Your task to perform on an android device: Go to notification settings Image 0: 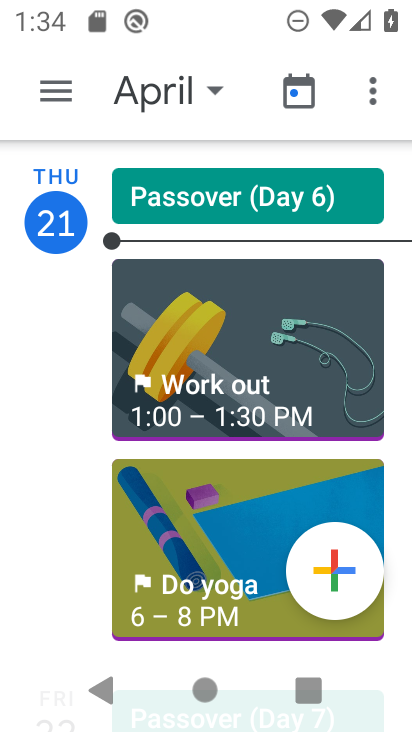
Step 0: press home button
Your task to perform on an android device: Go to notification settings Image 1: 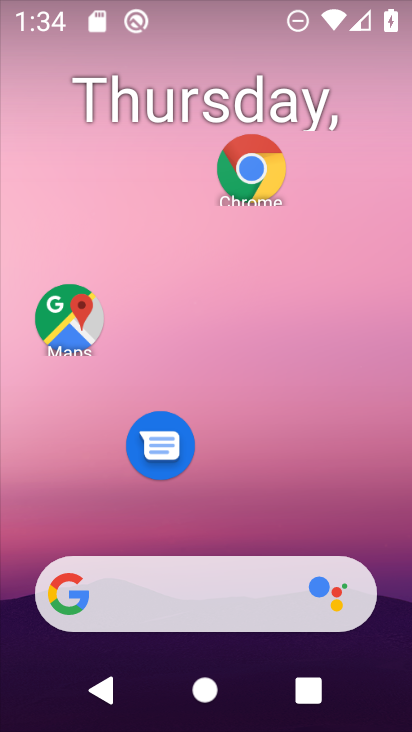
Step 1: drag from (189, 643) to (164, 132)
Your task to perform on an android device: Go to notification settings Image 2: 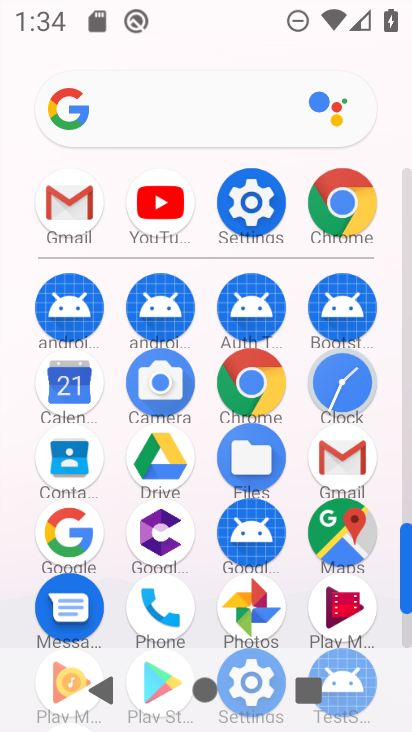
Step 2: click (248, 210)
Your task to perform on an android device: Go to notification settings Image 3: 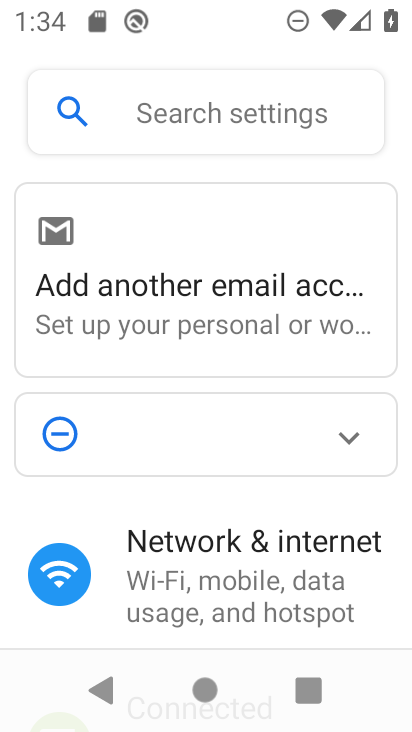
Step 3: click (199, 122)
Your task to perform on an android device: Go to notification settings Image 4: 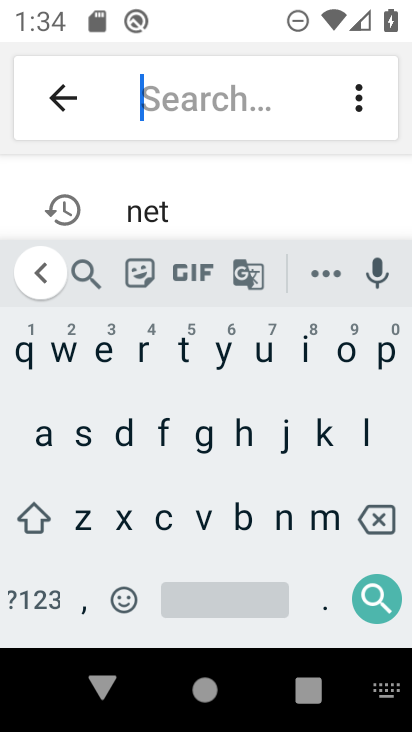
Step 4: click (279, 514)
Your task to perform on an android device: Go to notification settings Image 5: 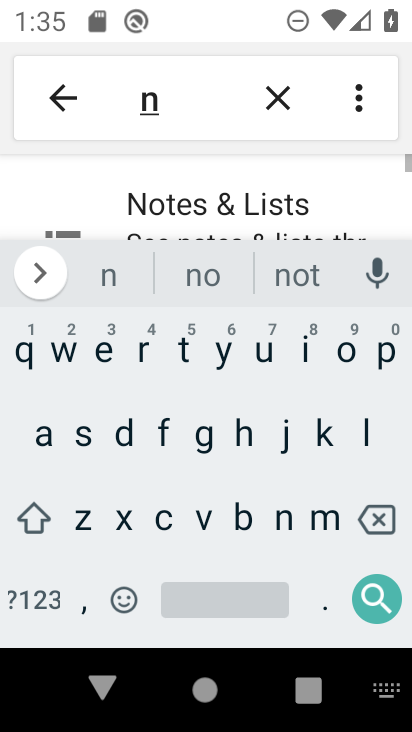
Step 5: click (349, 348)
Your task to perform on an android device: Go to notification settings Image 6: 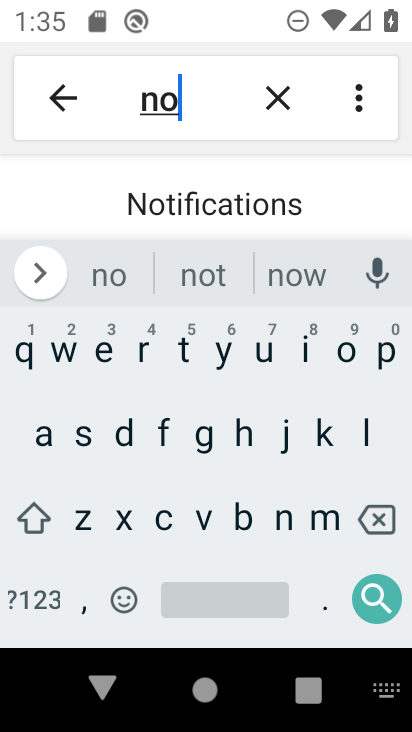
Step 6: click (182, 352)
Your task to perform on an android device: Go to notification settings Image 7: 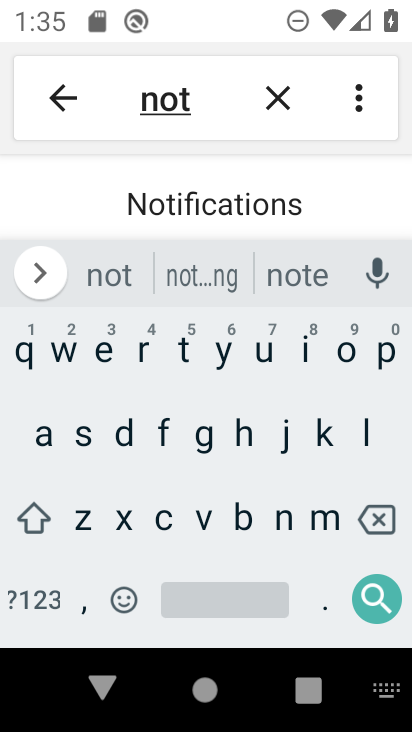
Step 7: click (217, 219)
Your task to perform on an android device: Go to notification settings Image 8: 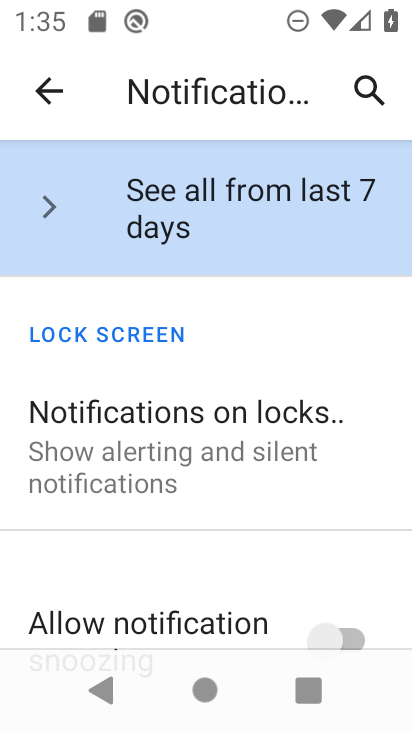
Step 8: click (126, 451)
Your task to perform on an android device: Go to notification settings Image 9: 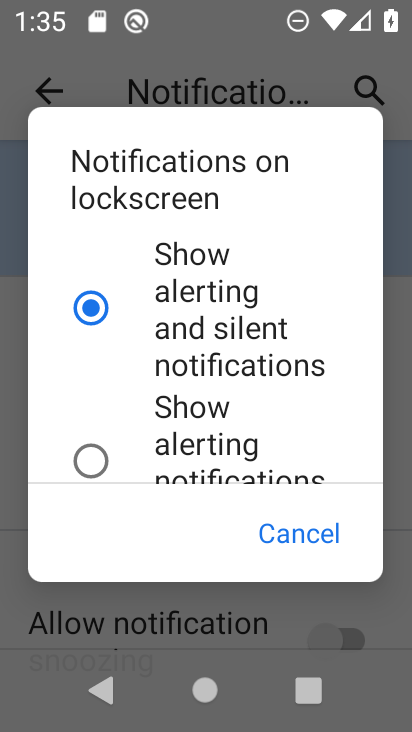
Step 9: task complete